Your task to perform on an android device: refresh tabs in the chrome app Image 0: 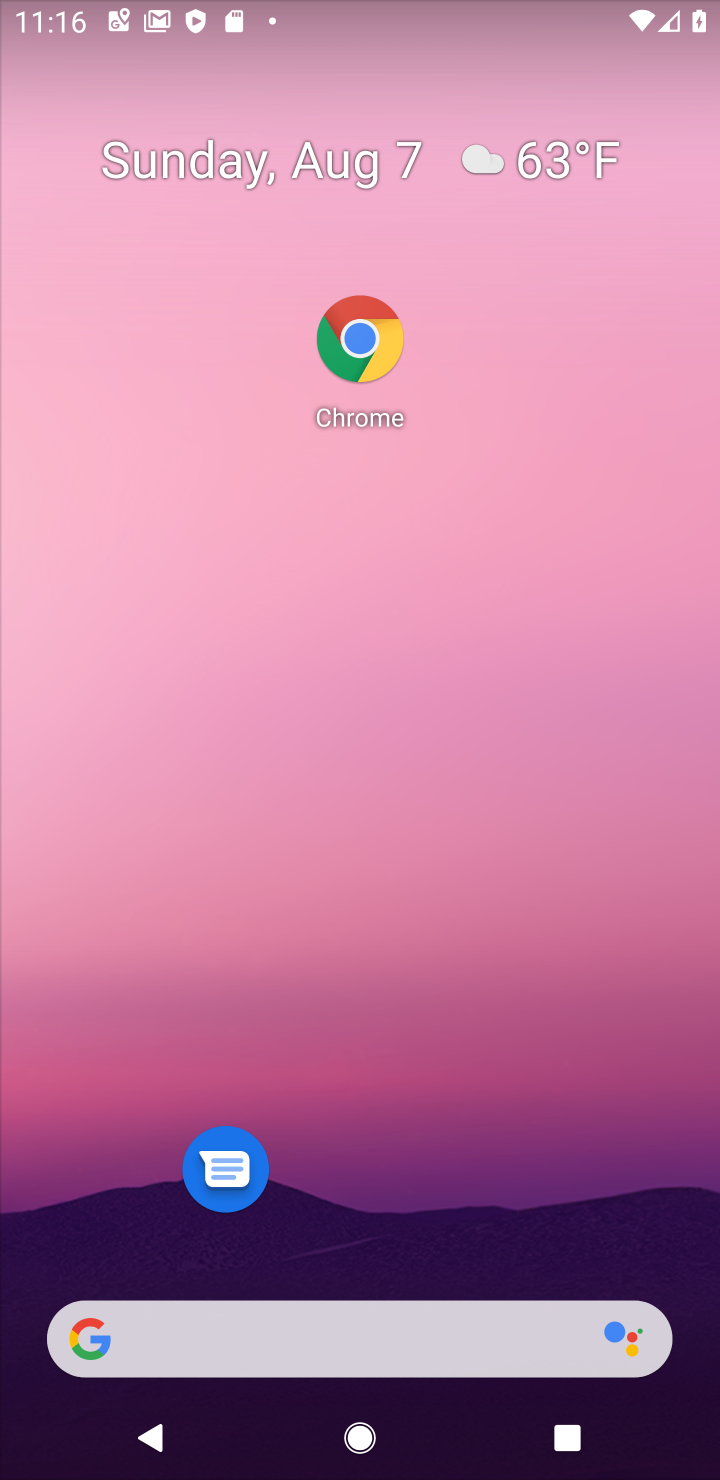
Step 0: press back button
Your task to perform on an android device: refresh tabs in the chrome app Image 1: 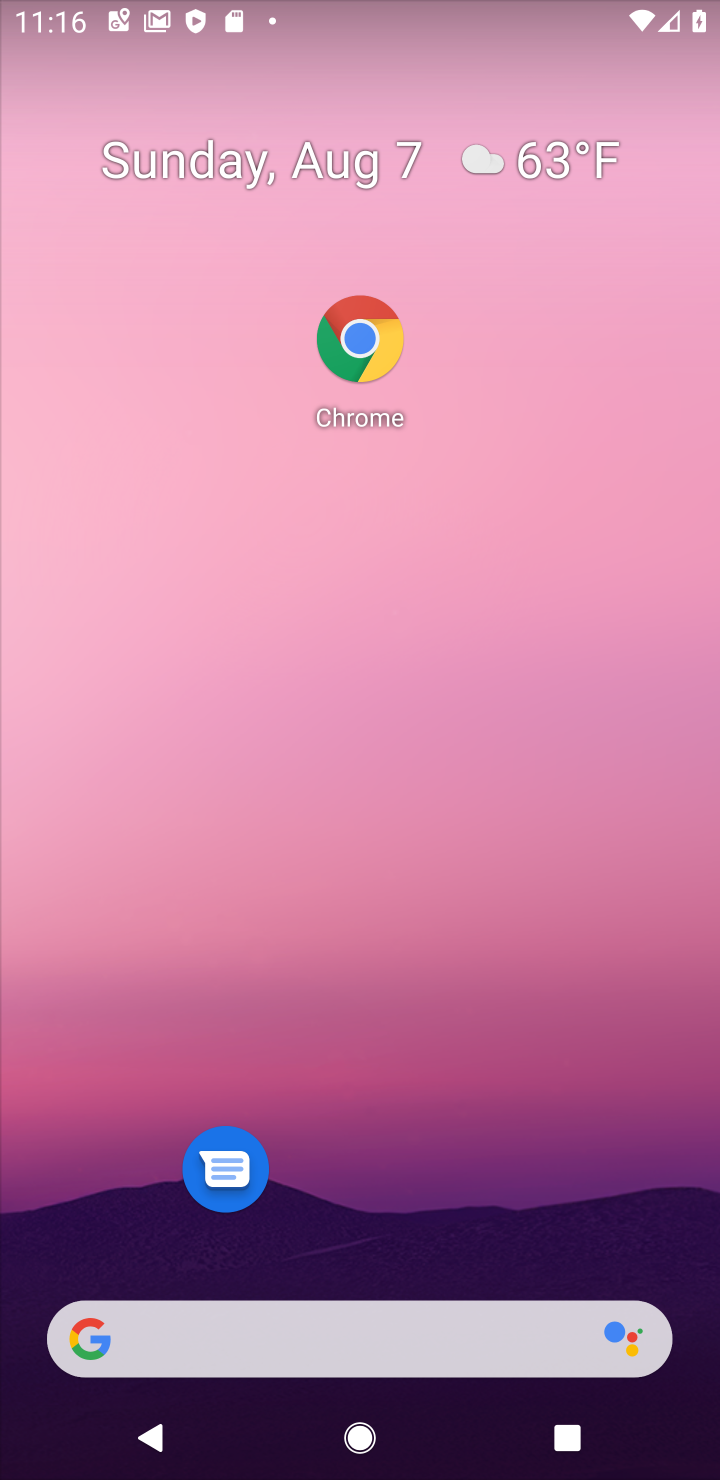
Step 1: click (376, 313)
Your task to perform on an android device: refresh tabs in the chrome app Image 2: 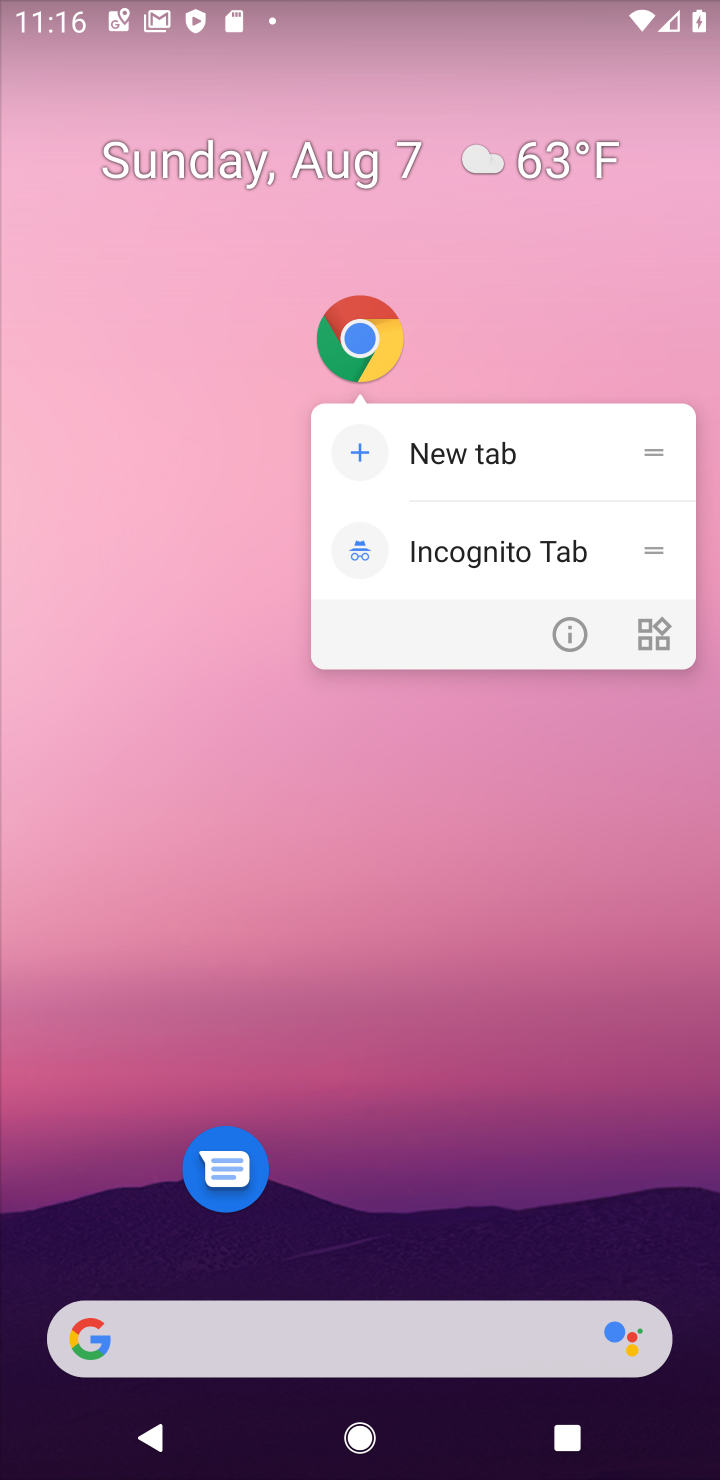
Step 2: click (362, 335)
Your task to perform on an android device: refresh tabs in the chrome app Image 3: 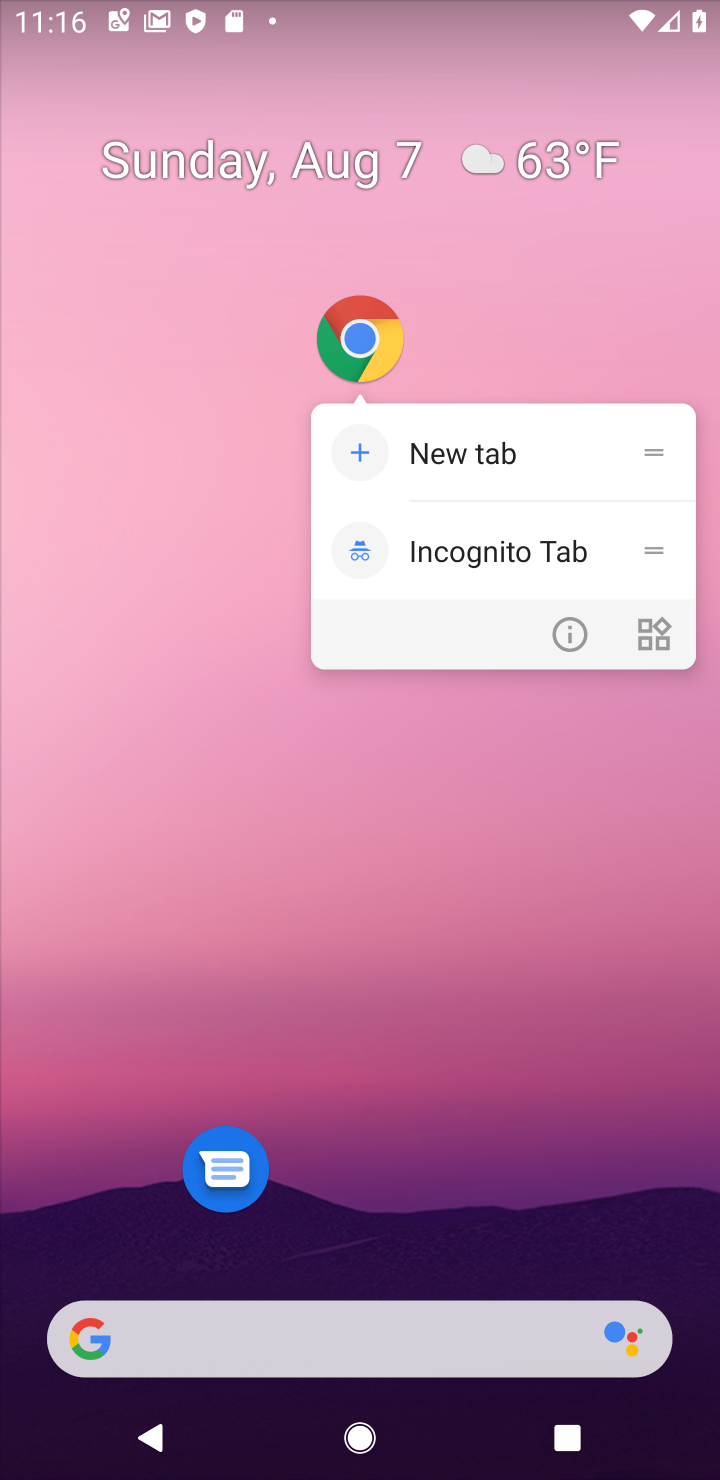
Step 3: click (362, 335)
Your task to perform on an android device: refresh tabs in the chrome app Image 4: 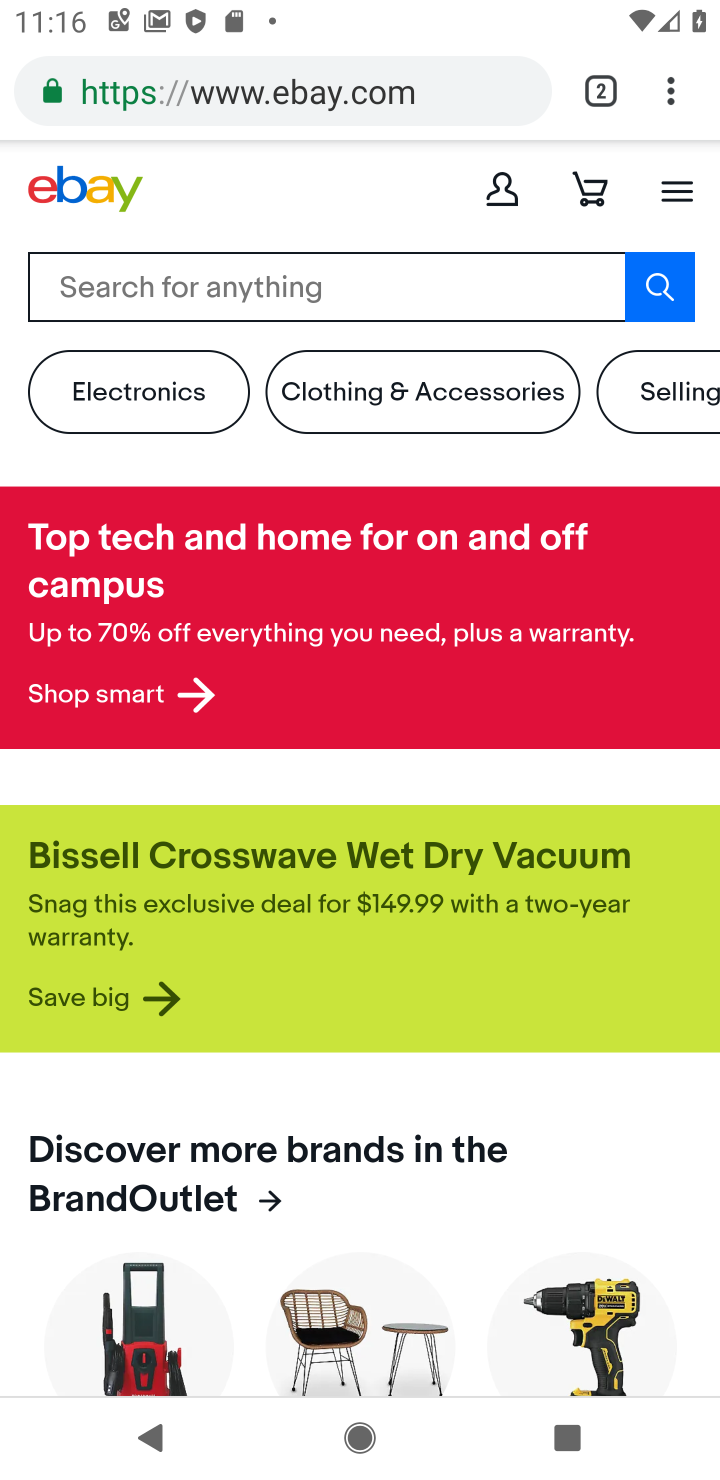
Step 4: click (673, 99)
Your task to perform on an android device: refresh tabs in the chrome app Image 5: 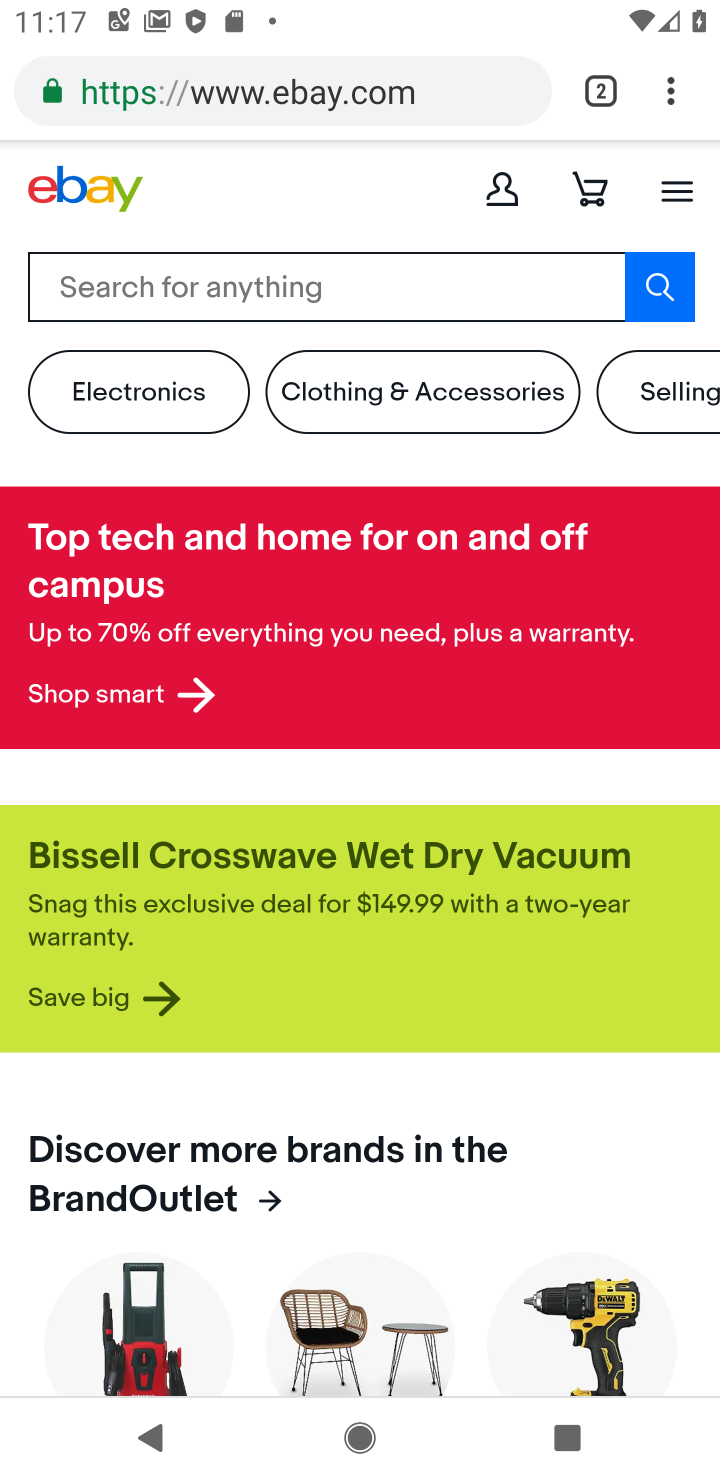
Step 5: click (666, 99)
Your task to perform on an android device: refresh tabs in the chrome app Image 6: 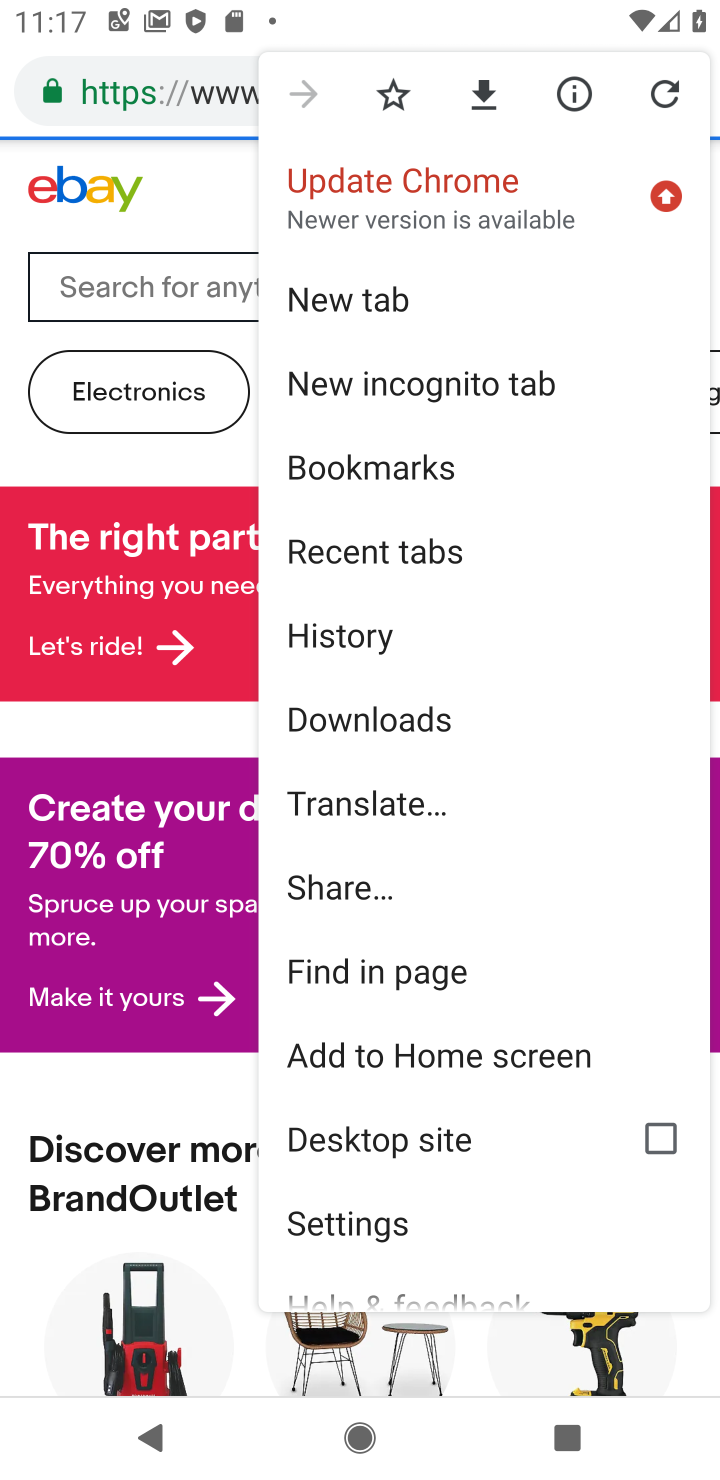
Step 6: click (639, 88)
Your task to perform on an android device: refresh tabs in the chrome app Image 7: 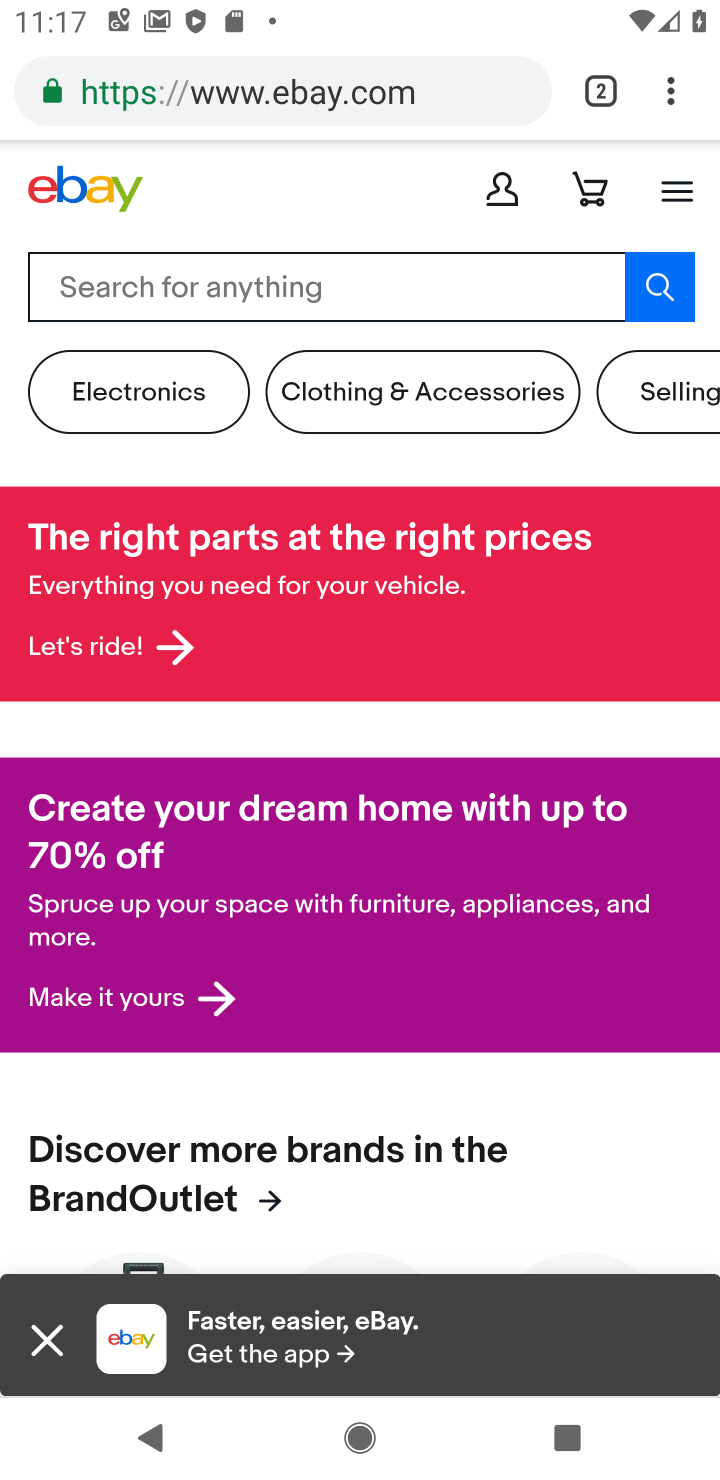
Step 7: task complete